Your task to perform on an android device: remove spam from my inbox in the gmail app Image 0: 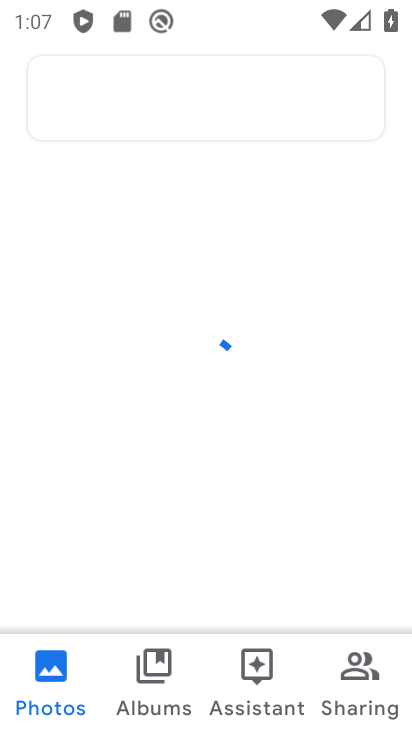
Step 0: press home button
Your task to perform on an android device: remove spam from my inbox in the gmail app Image 1: 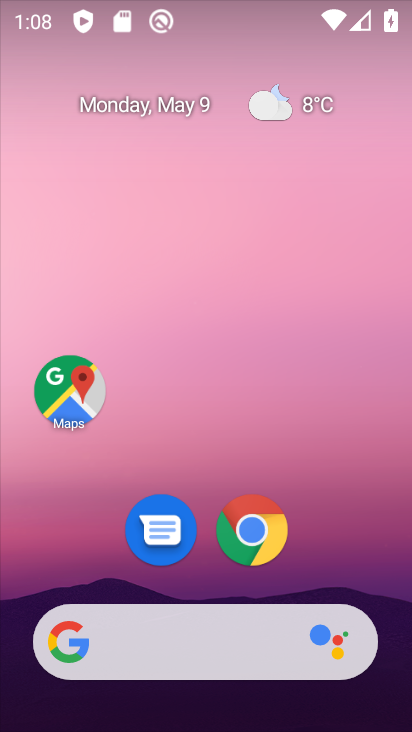
Step 1: drag from (202, 567) to (269, 93)
Your task to perform on an android device: remove spam from my inbox in the gmail app Image 2: 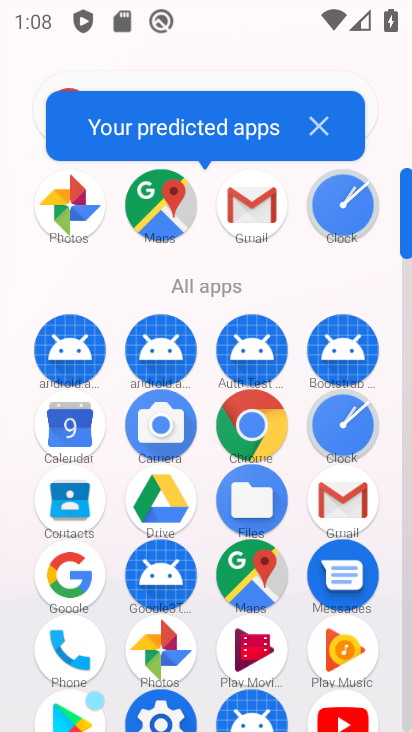
Step 2: click (238, 210)
Your task to perform on an android device: remove spam from my inbox in the gmail app Image 3: 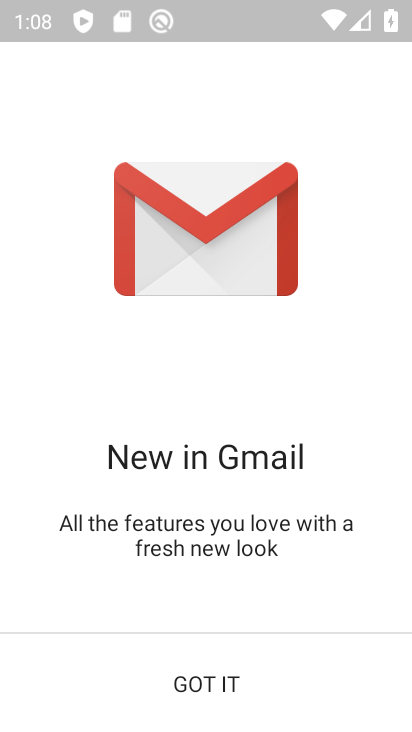
Step 3: click (201, 696)
Your task to perform on an android device: remove spam from my inbox in the gmail app Image 4: 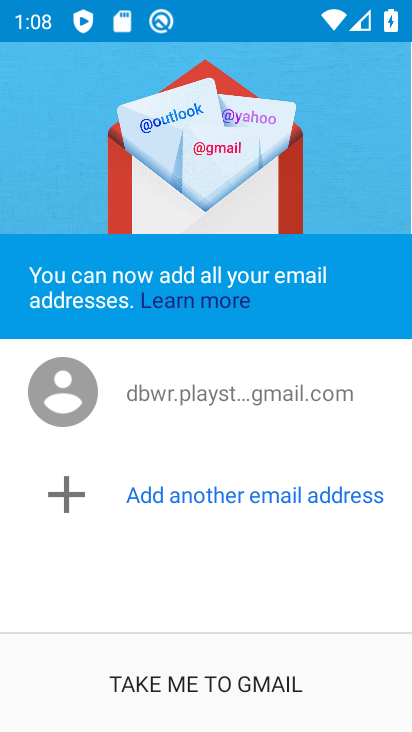
Step 4: click (195, 671)
Your task to perform on an android device: remove spam from my inbox in the gmail app Image 5: 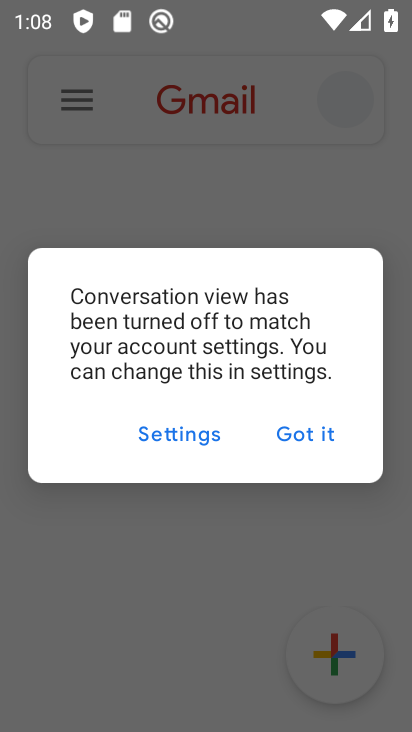
Step 5: click (295, 443)
Your task to perform on an android device: remove spam from my inbox in the gmail app Image 6: 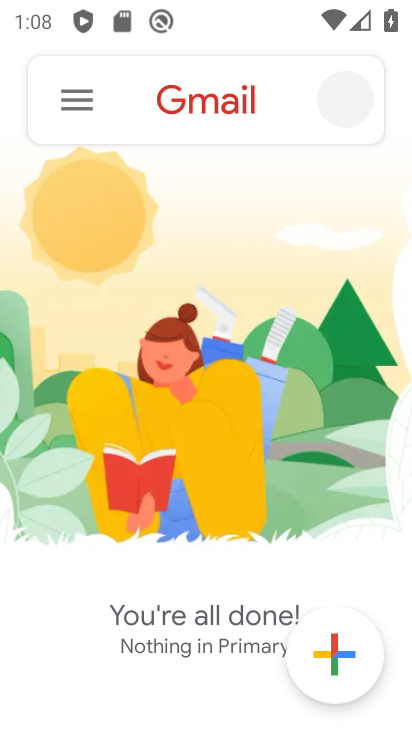
Step 6: click (62, 105)
Your task to perform on an android device: remove spam from my inbox in the gmail app Image 7: 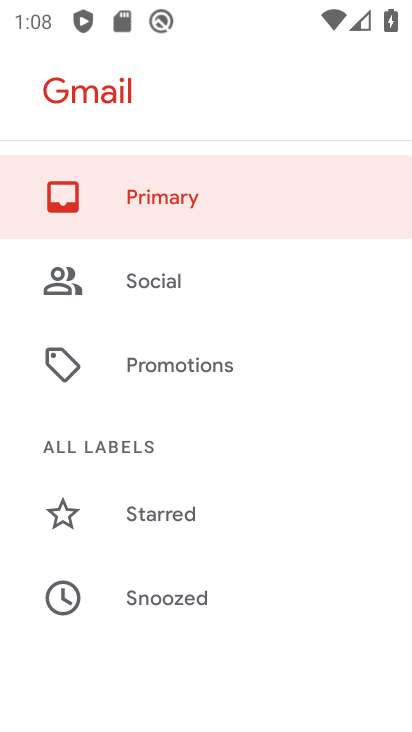
Step 7: task complete